Your task to perform on an android device: Go to privacy settings Image 0: 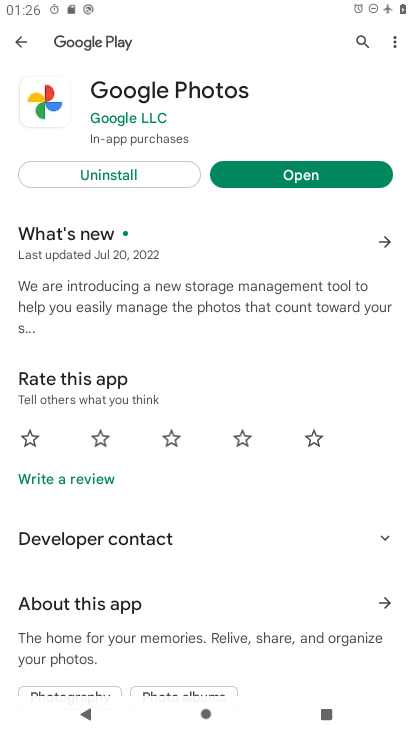
Step 0: press home button
Your task to perform on an android device: Go to privacy settings Image 1: 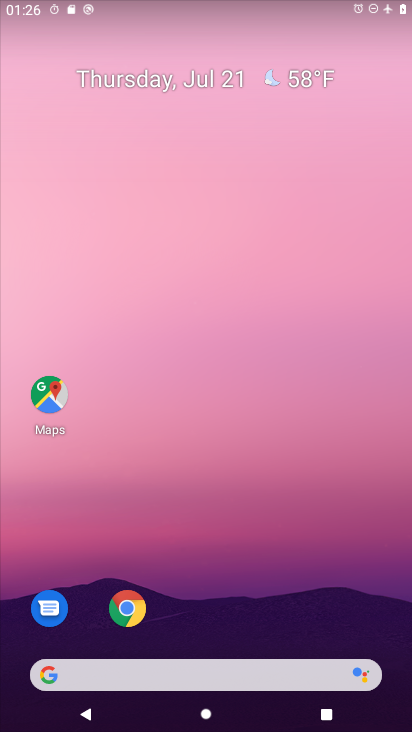
Step 1: drag from (204, 618) to (278, 118)
Your task to perform on an android device: Go to privacy settings Image 2: 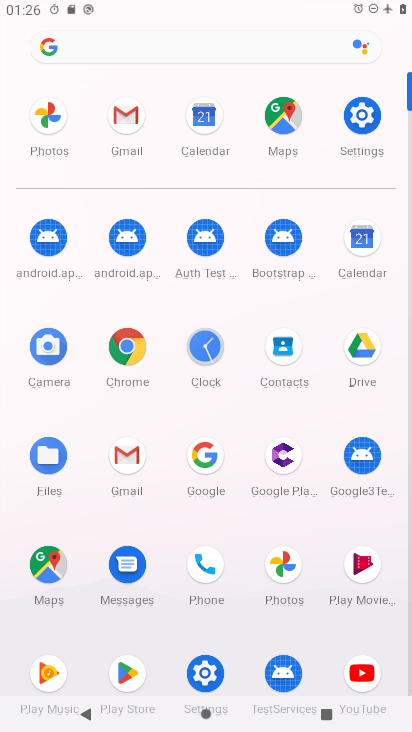
Step 2: click (341, 119)
Your task to perform on an android device: Go to privacy settings Image 3: 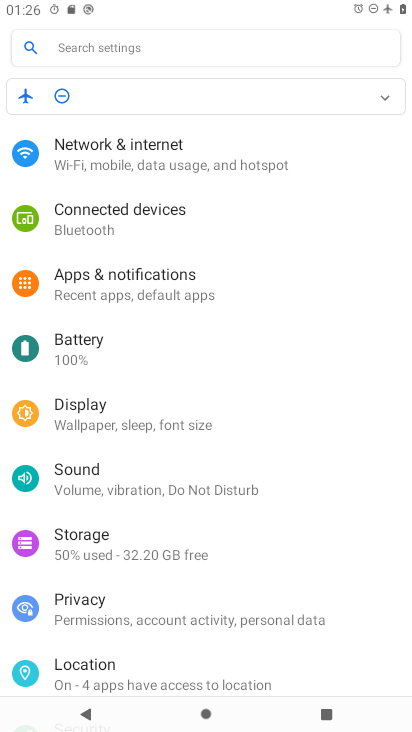
Step 3: click (99, 610)
Your task to perform on an android device: Go to privacy settings Image 4: 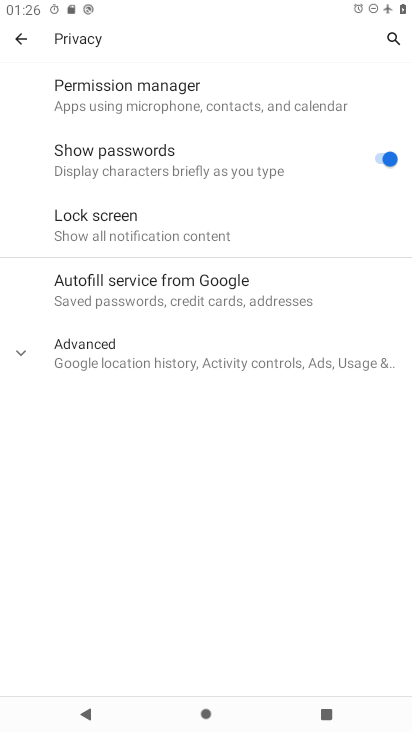
Step 4: click (99, 610)
Your task to perform on an android device: Go to privacy settings Image 5: 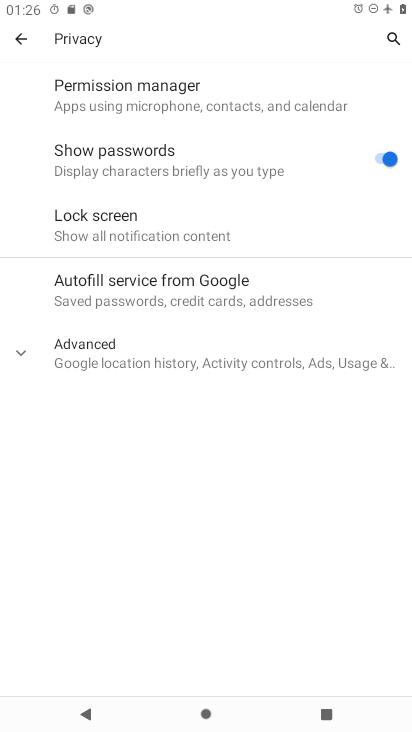
Step 5: task complete